Your task to perform on an android device: turn off picture-in-picture Image 0: 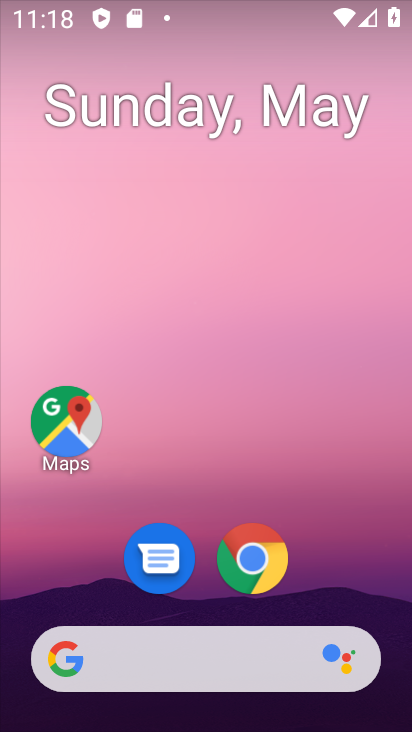
Step 0: drag from (368, 588) to (375, 126)
Your task to perform on an android device: turn off picture-in-picture Image 1: 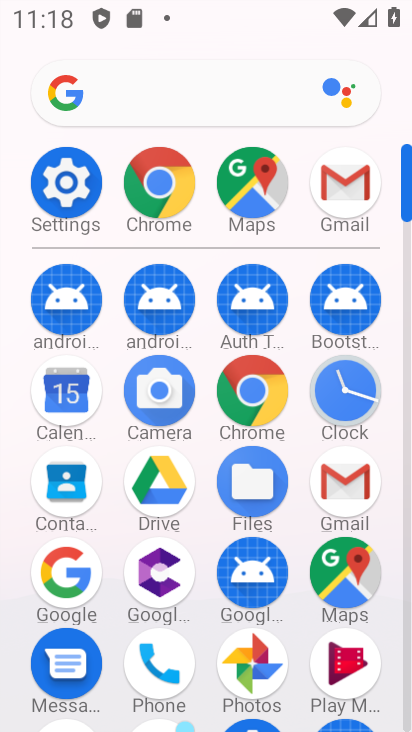
Step 1: click (90, 192)
Your task to perform on an android device: turn off picture-in-picture Image 2: 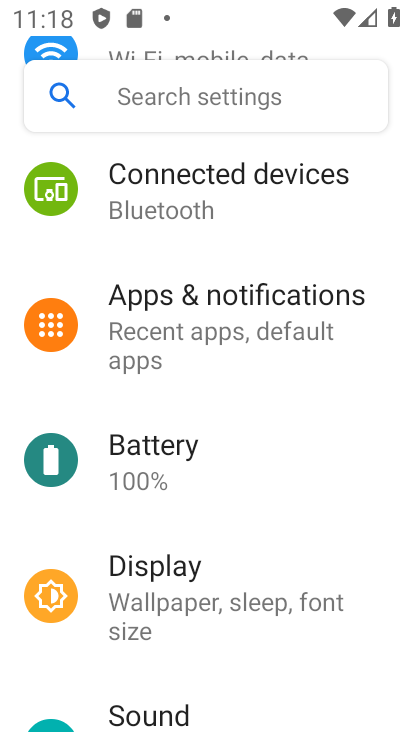
Step 2: drag from (380, 243) to (377, 398)
Your task to perform on an android device: turn off picture-in-picture Image 3: 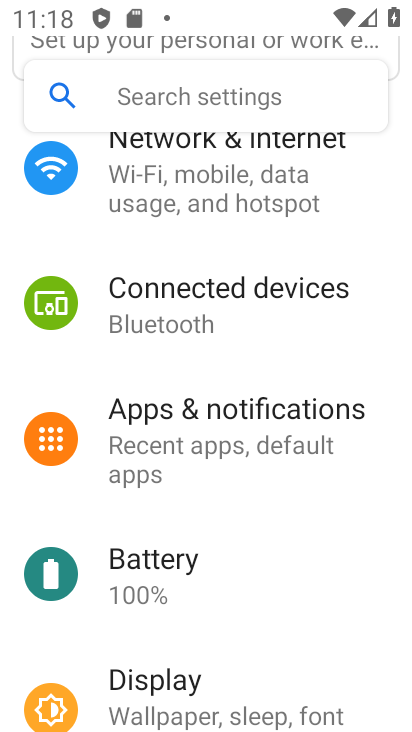
Step 3: drag from (362, 209) to (364, 468)
Your task to perform on an android device: turn off picture-in-picture Image 4: 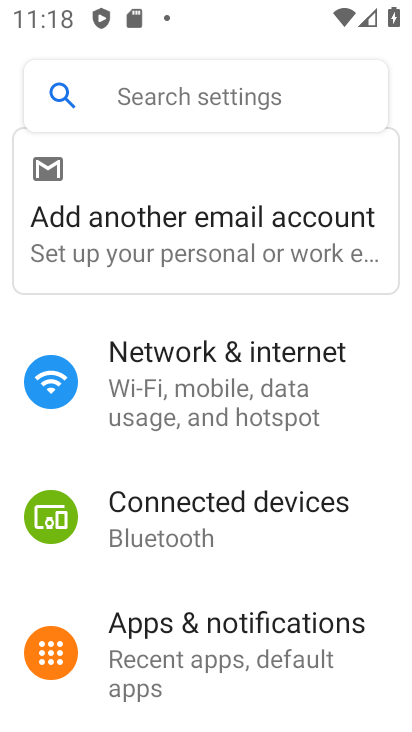
Step 4: drag from (377, 579) to (369, 416)
Your task to perform on an android device: turn off picture-in-picture Image 5: 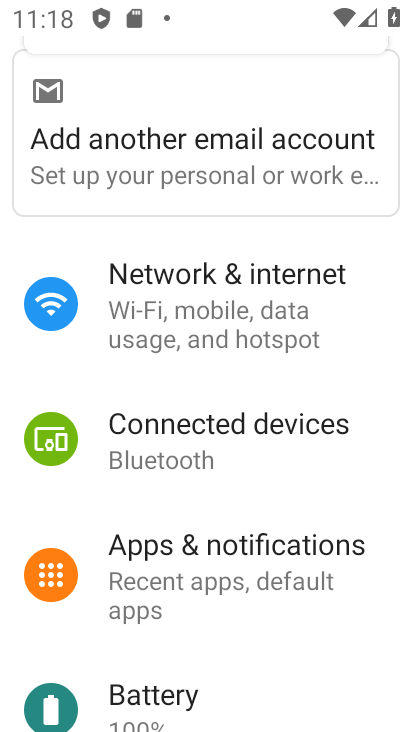
Step 5: drag from (348, 670) to (348, 490)
Your task to perform on an android device: turn off picture-in-picture Image 6: 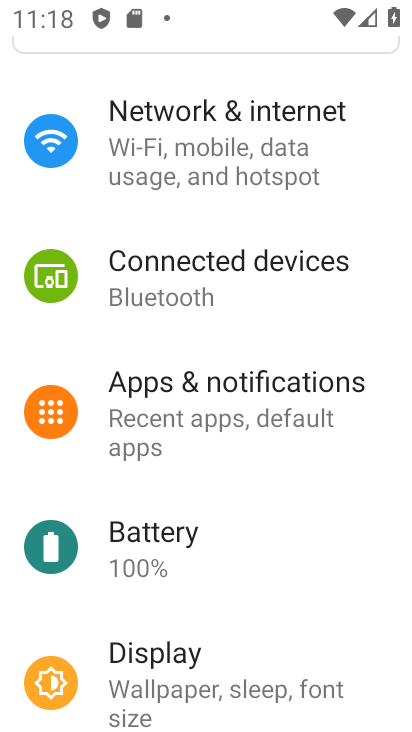
Step 6: click (275, 391)
Your task to perform on an android device: turn off picture-in-picture Image 7: 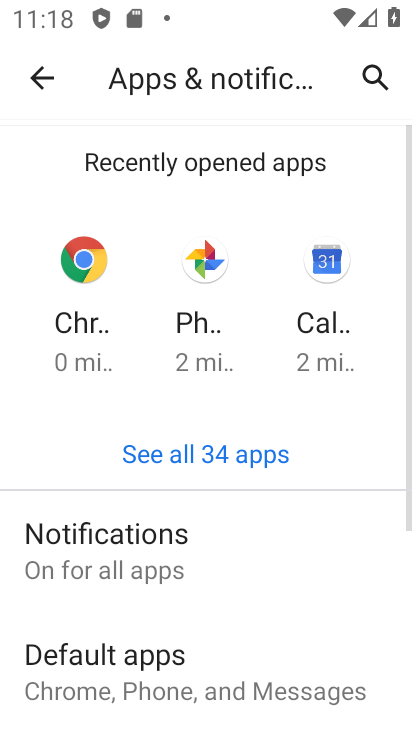
Step 7: drag from (308, 593) to (310, 437)
Your task to perform on an android device: turn off picture-in-picture Image 8: 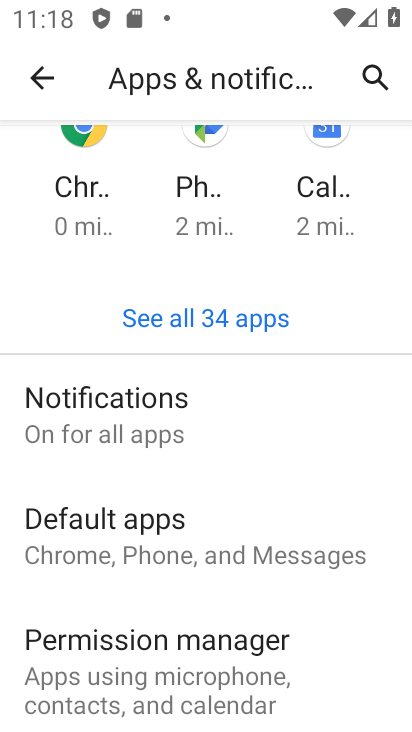
Step 8: drag from (341, 675) to (351, 396)
Your task to perform on an android device: turn off picture-in-picture Image 9: 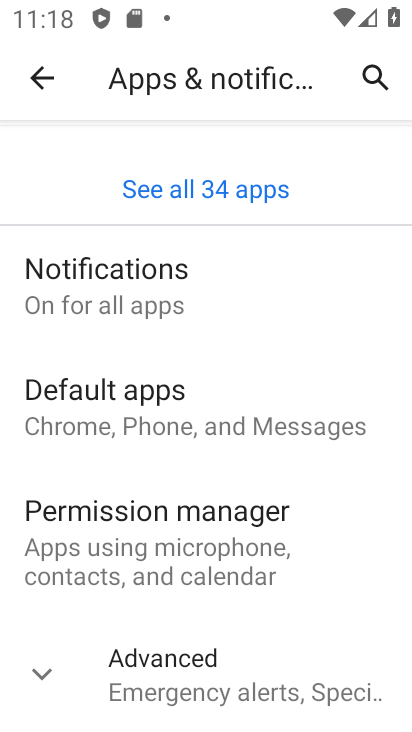
Step 9: click (248, 684)
Your task to perform on an android device: turn off picture-in-picture Image 10: 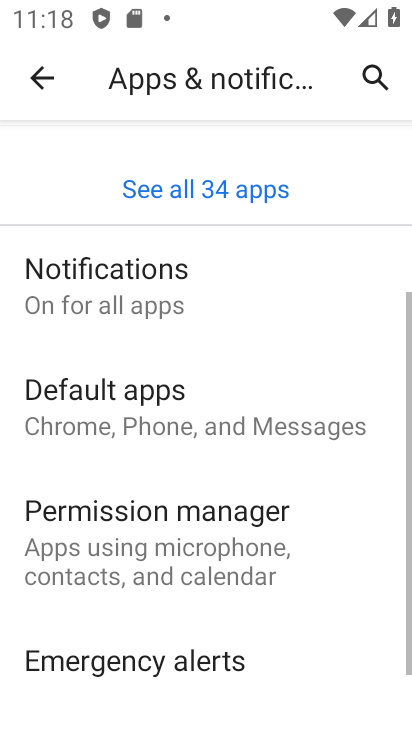
Step 10: drag from (333, 664) to (326, 426)
Your task to perform on an android device: turn off picture-in-picture Image 11: 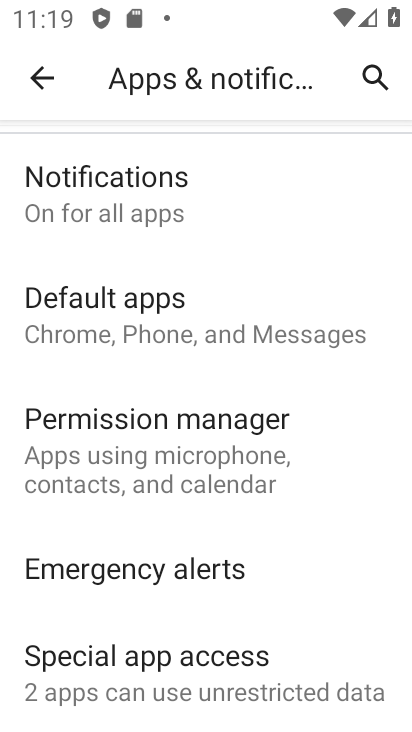
Step 11: click (298, 679)
Your task to perform on an android device: turn off picture-in-picture Image 12: 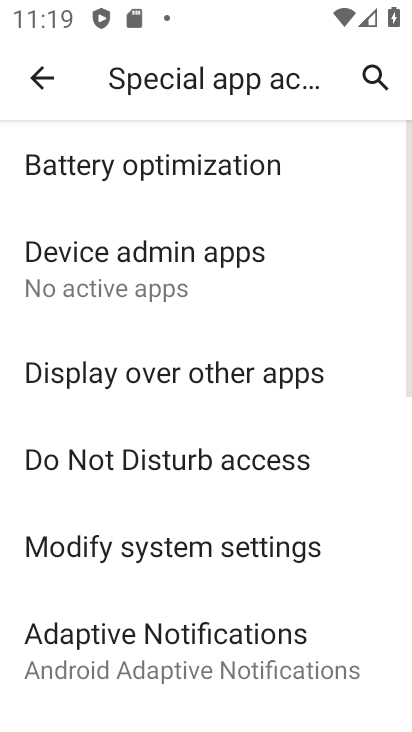
Step 12: drag from (366, 547) to (366, 413)
Your task to perform on an android device: turn off picture-in-picture Image 13: 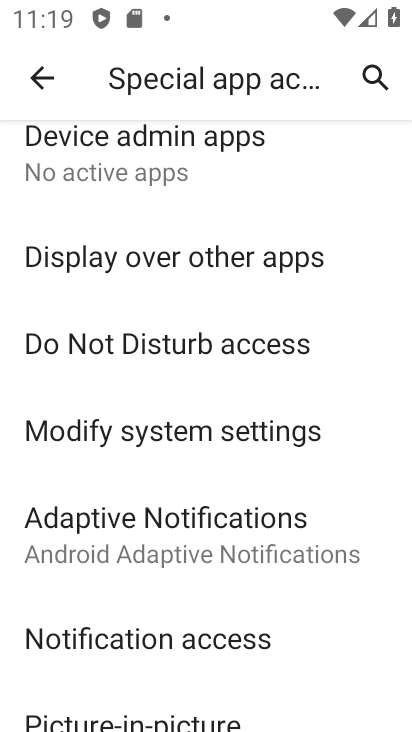
Step 13: drag from (337, 653) to (343, 455)
Your task to perform on an android device: turn off picture-in-picture Image 14: 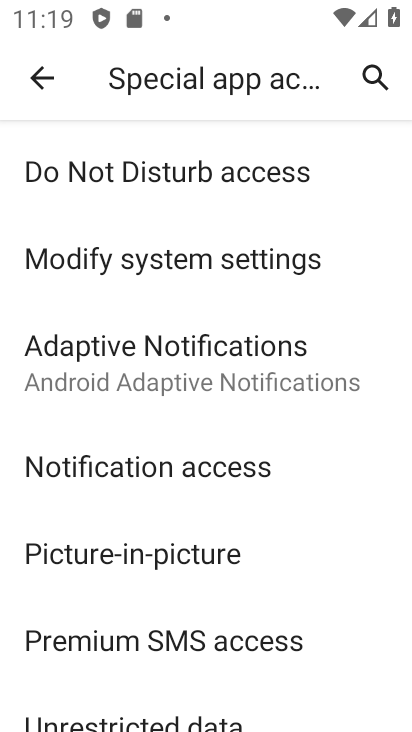
Step 14: drag from (345, 639) to (337, 482)
Your task to perform on an android device: turn off picture-in-picture Image 15: 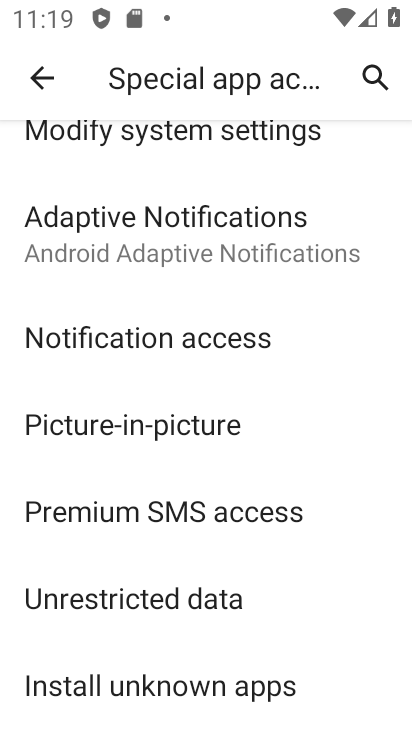
Step 15: click (208, 437)
Your task to perform on an android device: turn off picture-in-picture Image 16: 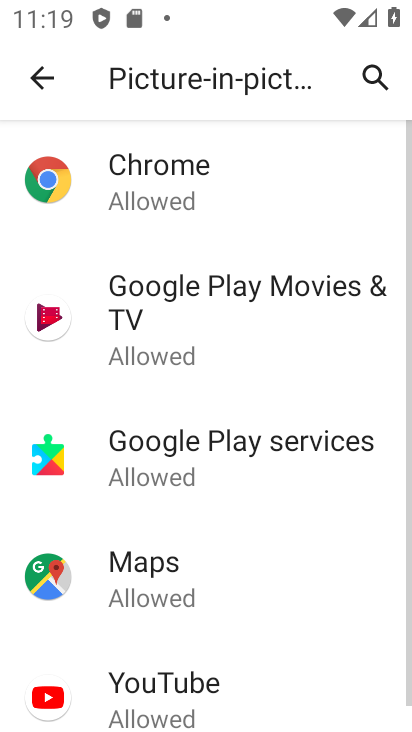
Step 16: drag from (327, 656) to (322, 525)
Your task to perform on an android device: turn off picture-in-picture Image 17: 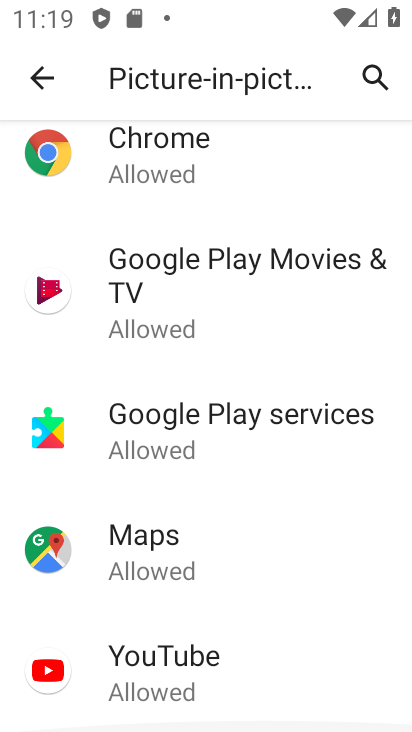
Step 17: click (244, 675)
Your task to perform on an android device: turn off picture-in-picture Image 18: 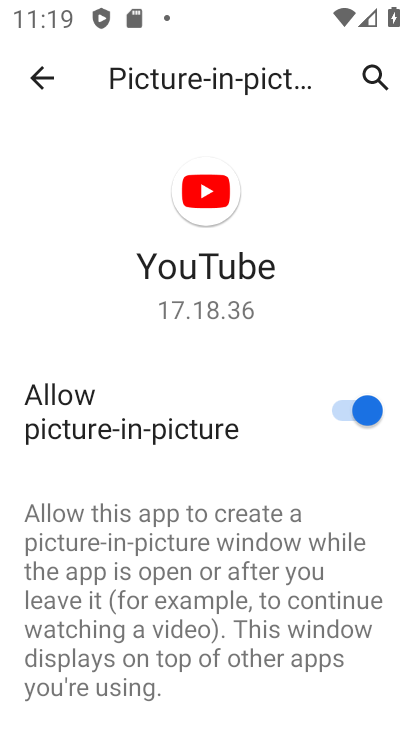
Step 18: click (361, 425)
Your task to perform on an android device: turn off picture-in-picture Image 19: 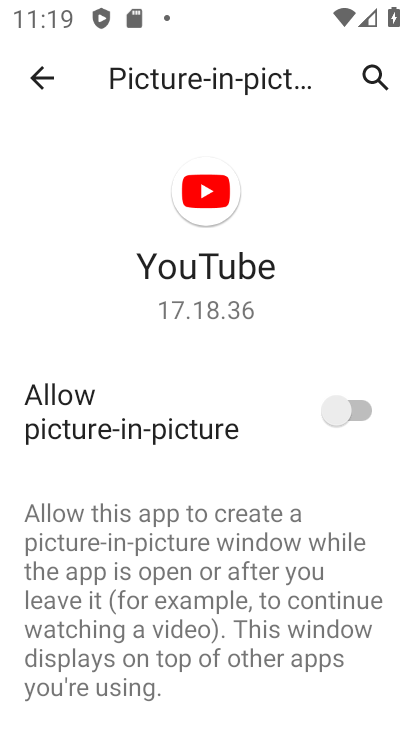
Step 19: task complete